Your task to perform on an android device: Search for the Nintendo Switch. Image 0: 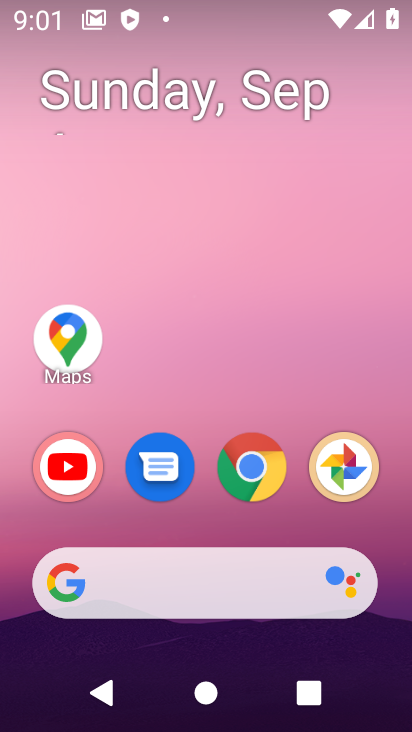
Step 0: click (263, 478)
Your task to perform on an android device: Search for the Nintendo Switch. Image 1: 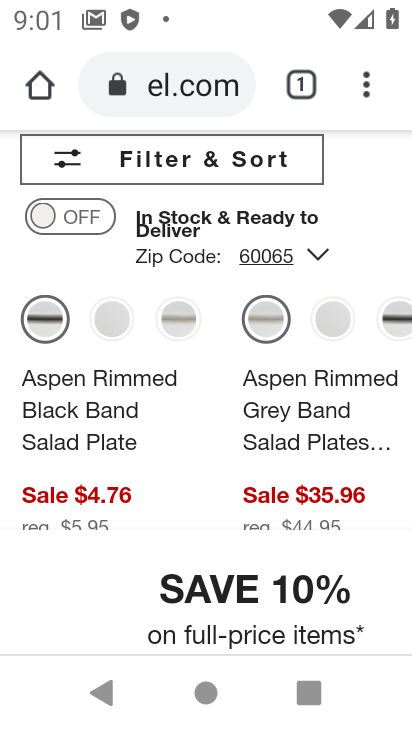
Step 1: click (198, 84)
Your task to perform on an android device: Search for the Nintendo Switch. Image 2: 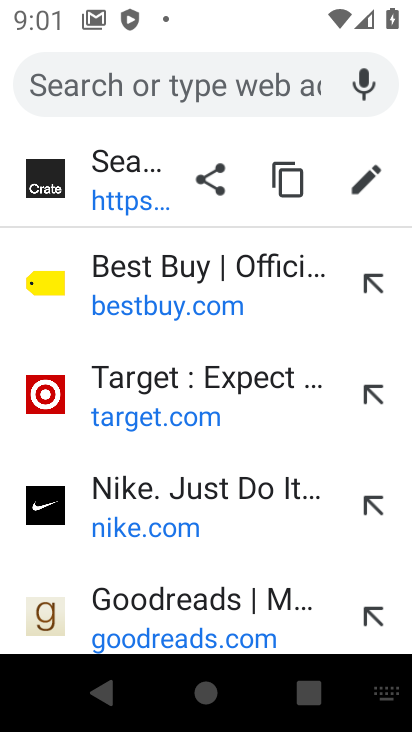
Step 2: type "nintendo switch "
Your task to perform on an android device: Search for the Nintendo Switch. Image 3: 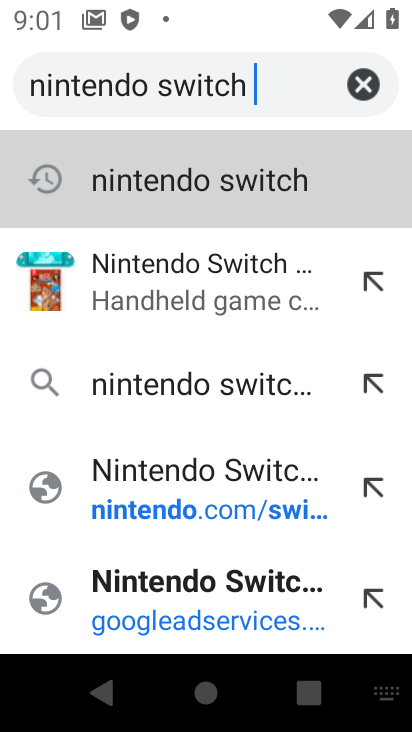
Step 3: type ""
Your task to perform on an android device: Search for the Nintendo Switch. Image 4: 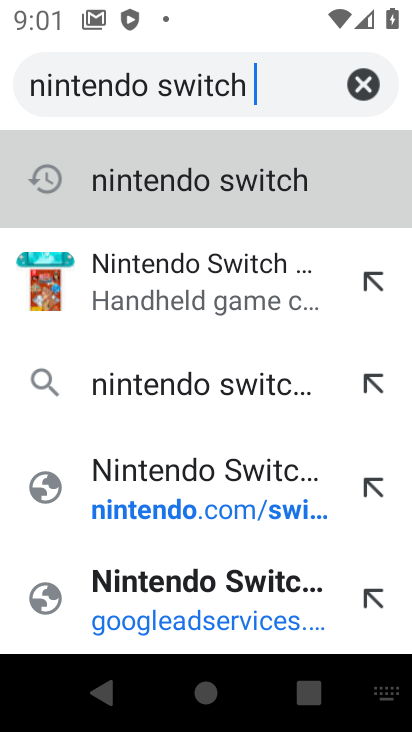
Step 4: click (206, 265)
Your task to perform on an android device: Search for the Nintendo Switch. Image 5: 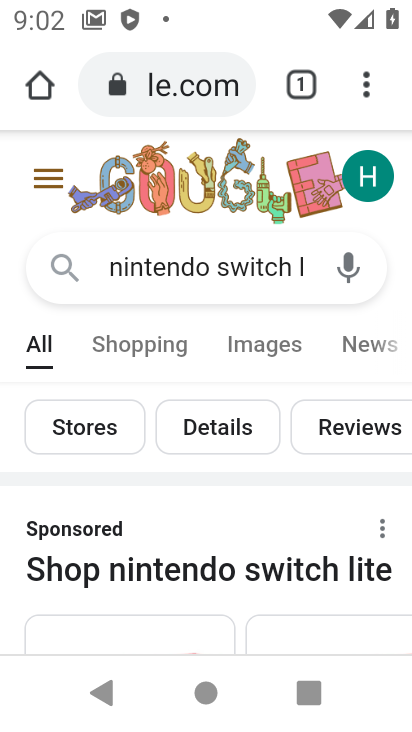
Step 5: drag from (173, 492) to (157, 163)
Your task to perform on an android device: Search for the Nintendo Switch. Image 6: 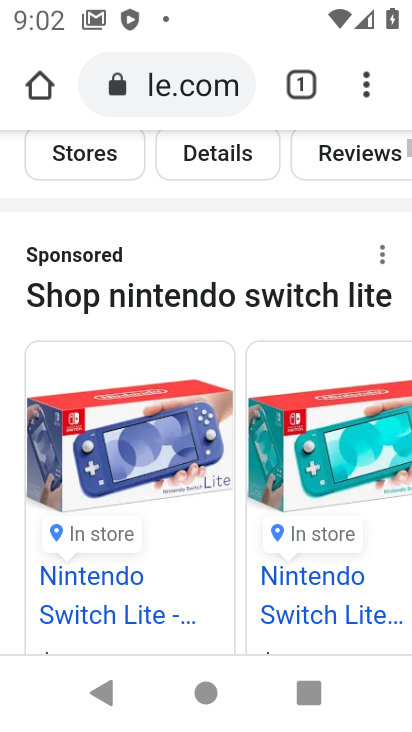
Step 6: click (136, 457)
Your task to perform on an android device: Search for the Nintendo Switch. Image 7: 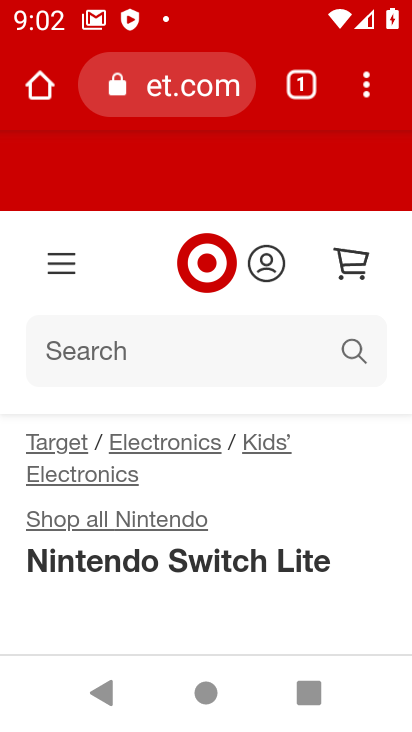
Step 7: task complete